Your task to perform on an android device: Go to location settings Image 0: 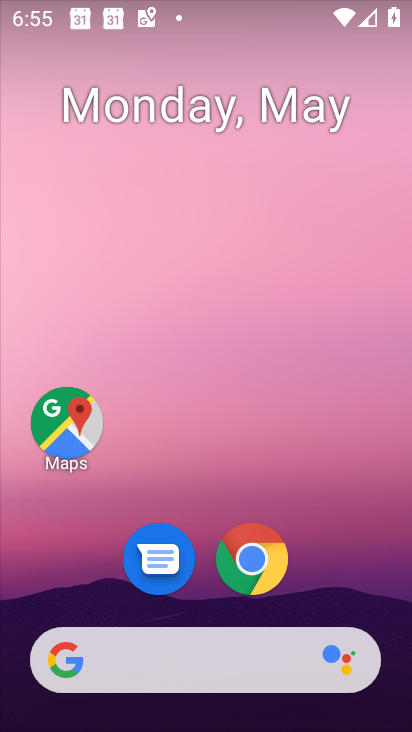
Step 0: drag from (394, 648) to (293, 15)
Your task to perform on an android device: Go to location settings Image 1: 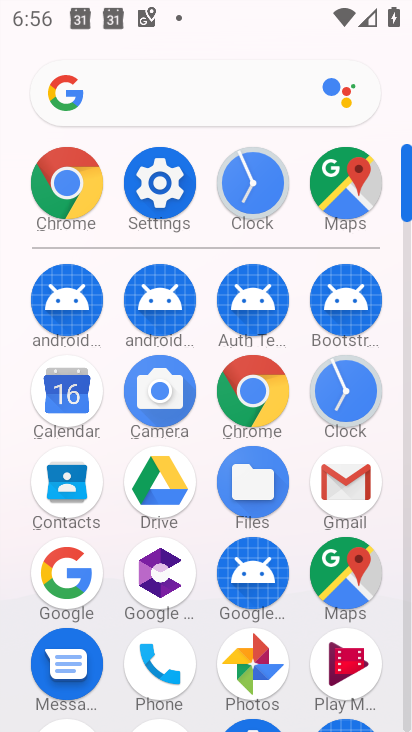
Step 1: click (169, 161)
Your task to perform on an android device: Go to location settings Image 2: 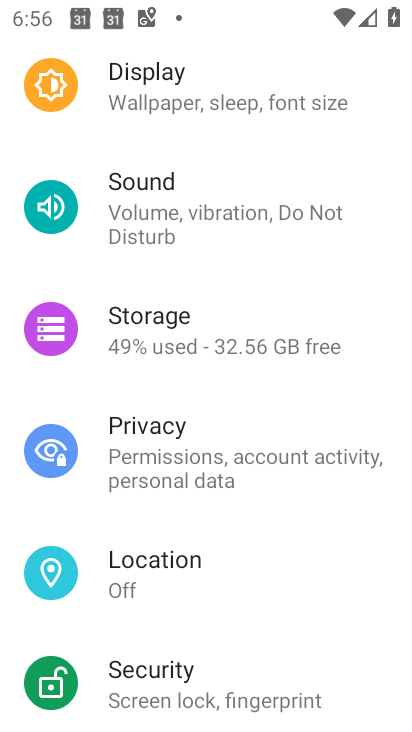
Step 2: click (161, 604)
Your task to perform on an android device: Go to location settings Image 3: 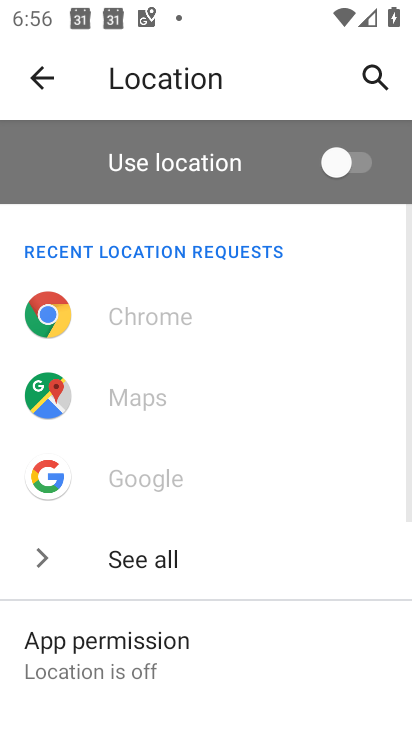
Step 3: task complete